Your task to perform on an android device: Go to notification settings Image 0: 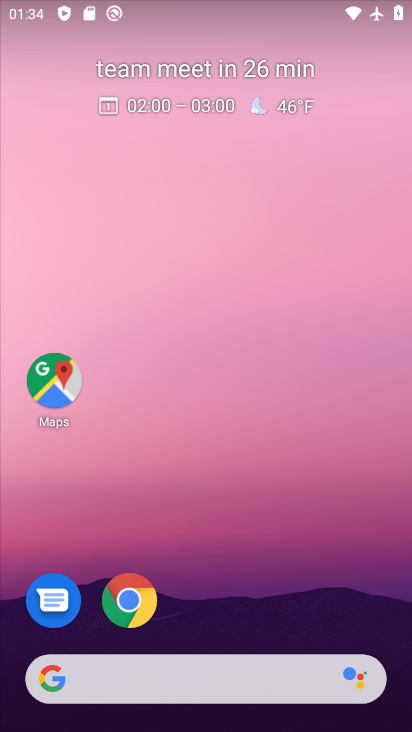
Step 0: drag from (205, 651) to (231, 3)
Your task to perform on an android device: Go to notification settings Image 1: 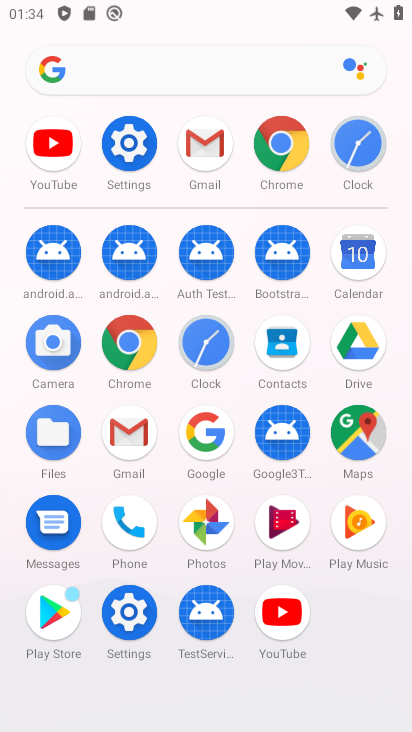
Step 1: click (139, 610)
Your task to perform on an android device: Go to notification settings Image 2: 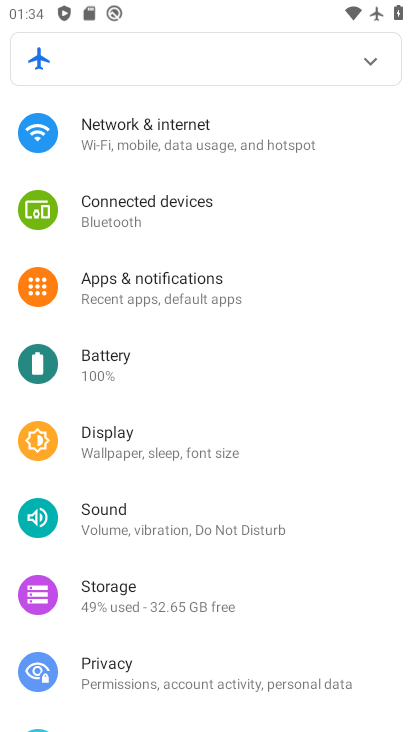
Step 2: click (160, 301)
Your task to perform on an android device: Go to notification settings Image 3: 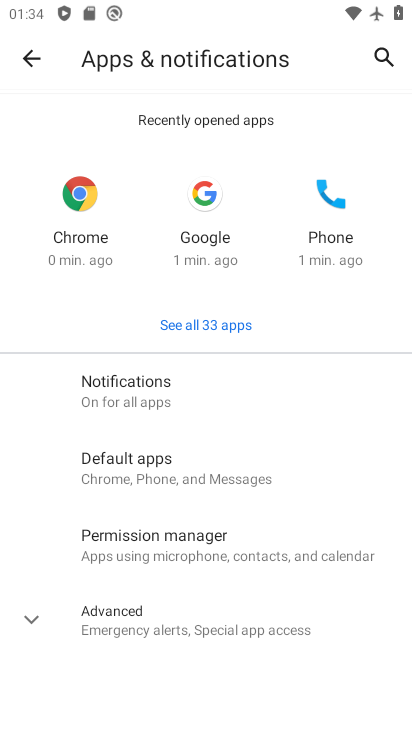
Step 3: click (158, 394)
Your task to perform on an android device: Go to notification settings Image 4: 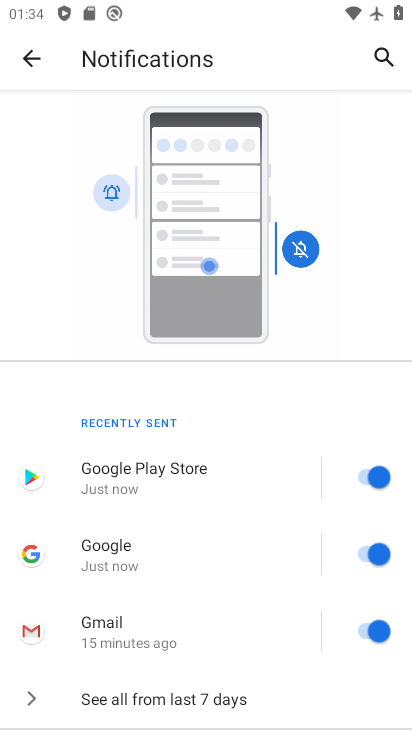
Step 4: task complete